Your task to perform on an android device: turn off improve location accuracy Image 0: 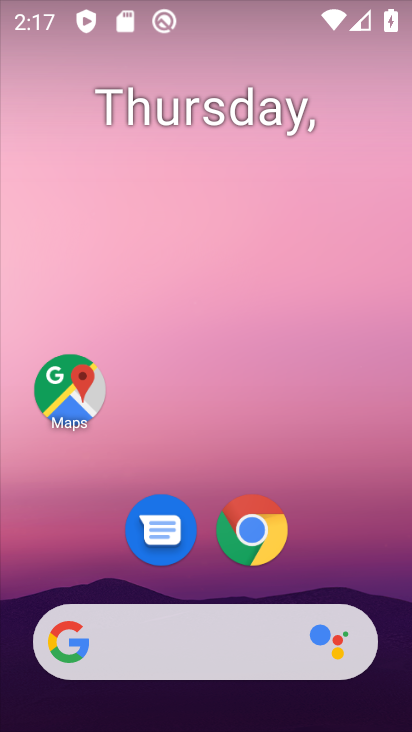
Step 0: drag from (214, 716) to (241, 142)
Your task to perform on an android device: turn off improve location accuracy Image 1: 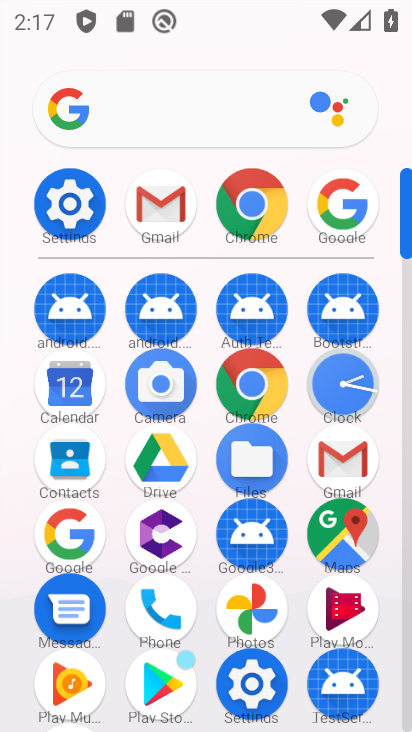
Step 1: click (60, 205)
Your task to perform on an android device: turn off improve location accuracy Image 2: 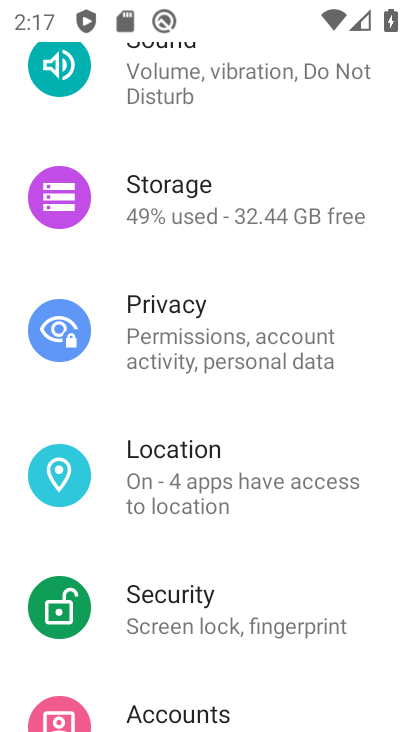
Step 2: click (230, 465)
Your task to perform on an android device: turn off improve location accuracy Image 3: 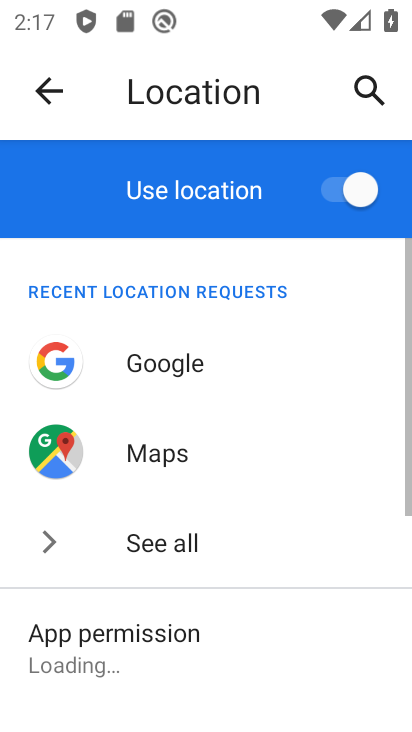
Step 3: drag from (309, 612) to (310, 277)
Your task to perform on an android device: turn off improve location accuracy Image 4: 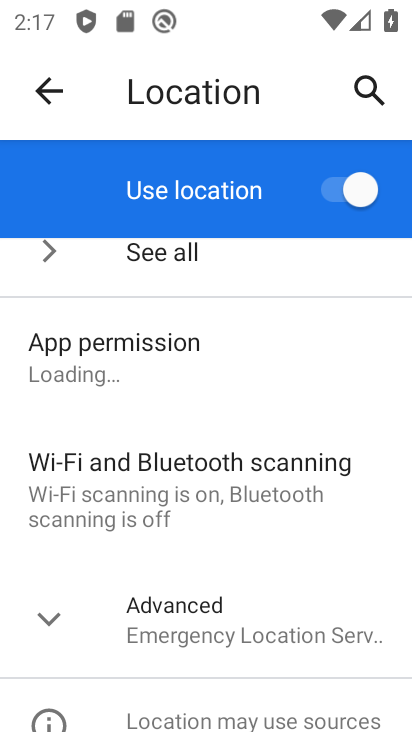
Step 4: click (250, 617)
Your task to perform on an android device: turn off improve location accuracy Image 5: 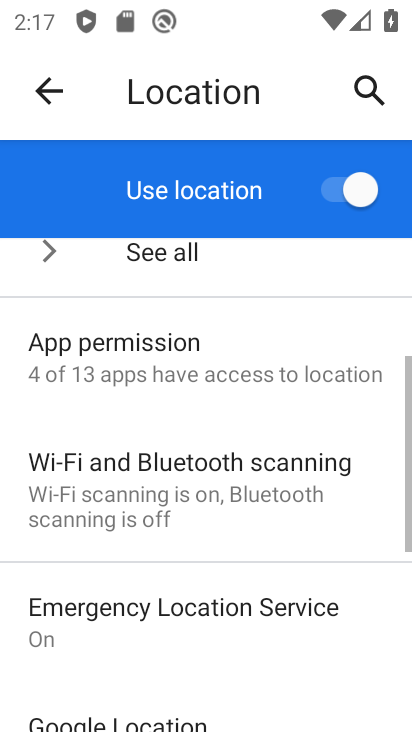
Step 5: drag from (294, 682) to (294, 357)
Your task to perform on an android device: turn off improve location accuracy Image 6: 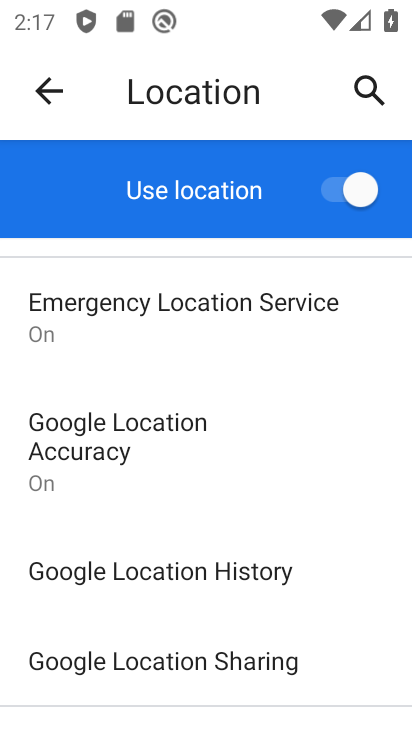
Step 6: click (85, 441)
Your task to perform on an android device: turn off improve location accuracy Image 7: 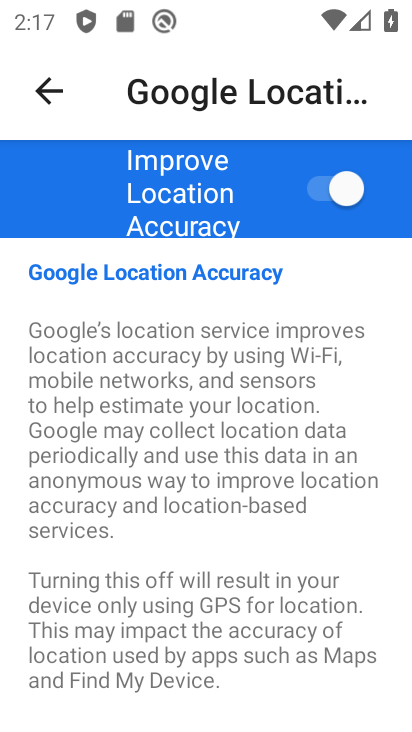
Step 7: click (350, 199)
Your task to perform on an android device: turn off improve location accuracy Image 8: 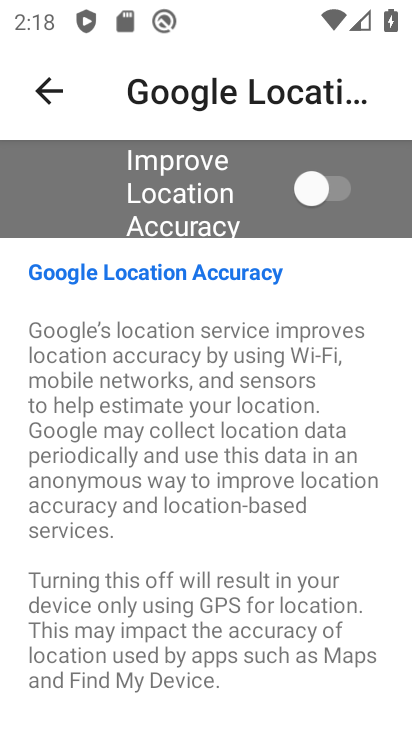
Step 8: task complete